Your task to perform on an android device: turn on notifications settings in the gmail app Image 0: 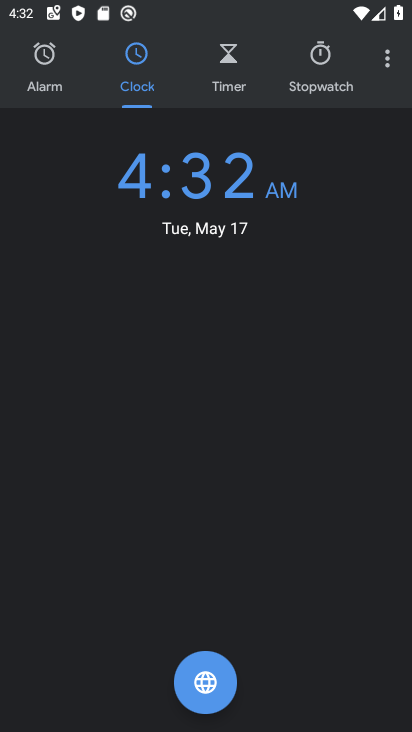
Step 0: press home button
Your task to perform on an android device: turn on notifications settings in the gmail app Image 1: 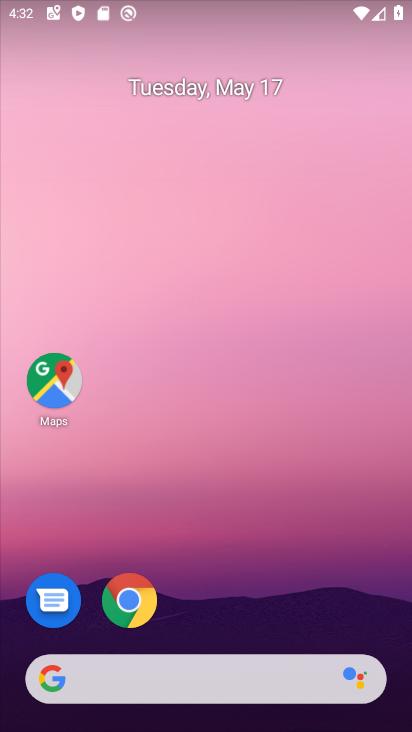
Step 1: drag from (232, 606) to (354, 0)
Your task to perform on an android device: turn on notifications settings in the gmail app Image 2: 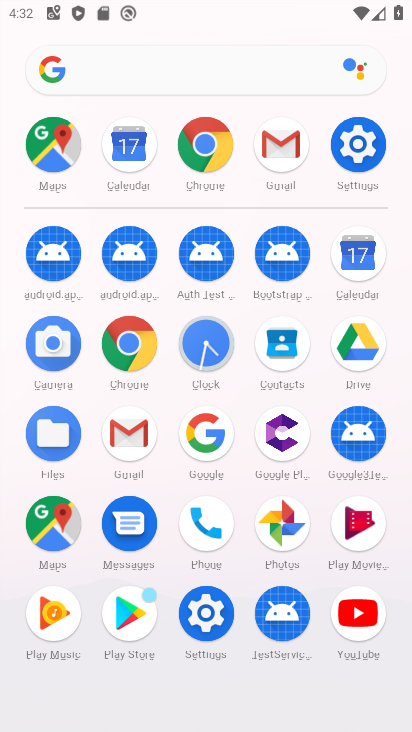
Step 2: click (139, 430)
Your task to perform on an android device: turn on notifications settings in the gmail app Image 3: 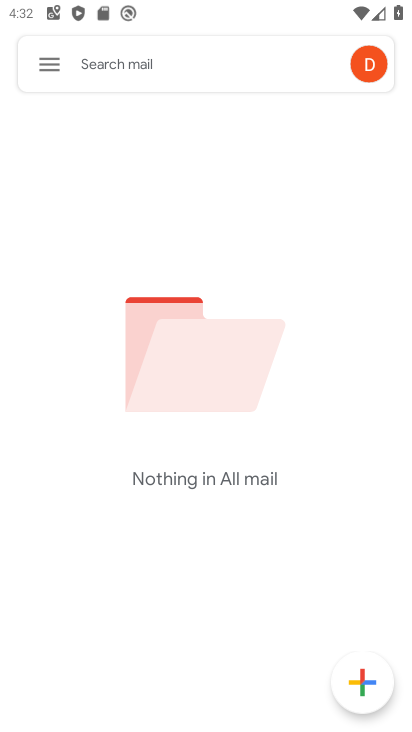
Step 3: click (51, 62)
Your task to perform on an android device: turn on notifications settings in the gmail app Image 4: 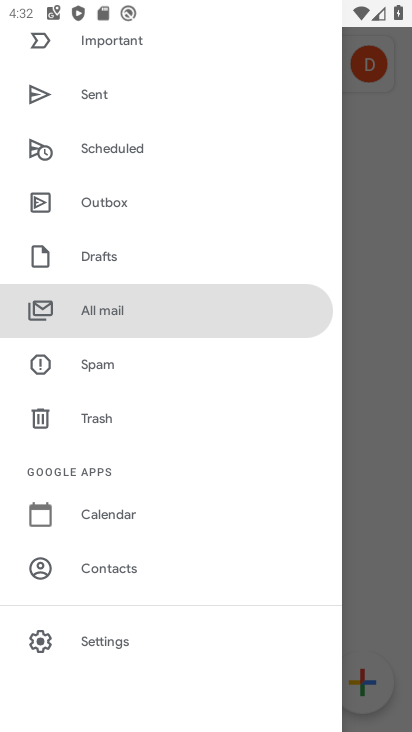
Step 4: click (109, 643)
Your task to perform on an android device: turn on notifications settings in the gmail app Image 5: 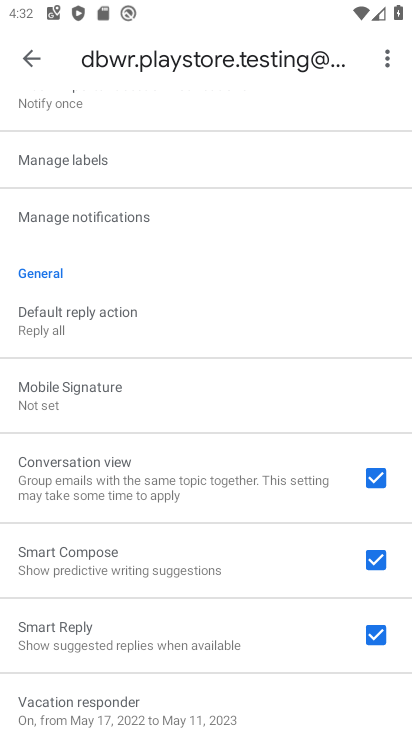
Step 5: click (32, 57)
Your task to perform on an android device: turn on notifications settings in the gmail app Image 6: 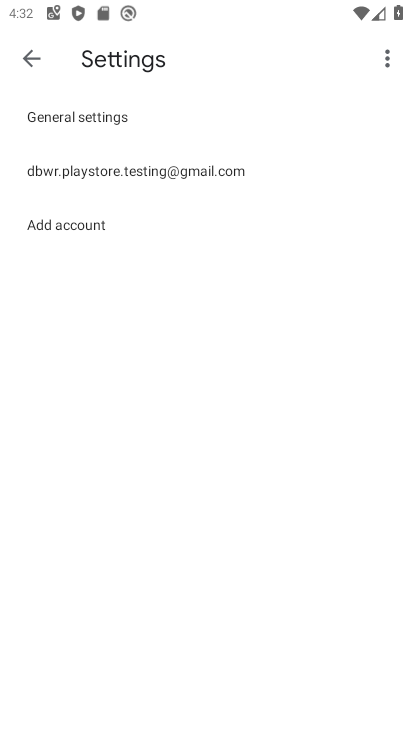
Step 6: click (112, 115)
Your task to perform on an android device: turn on notifications settings in the gmail app Image 7: 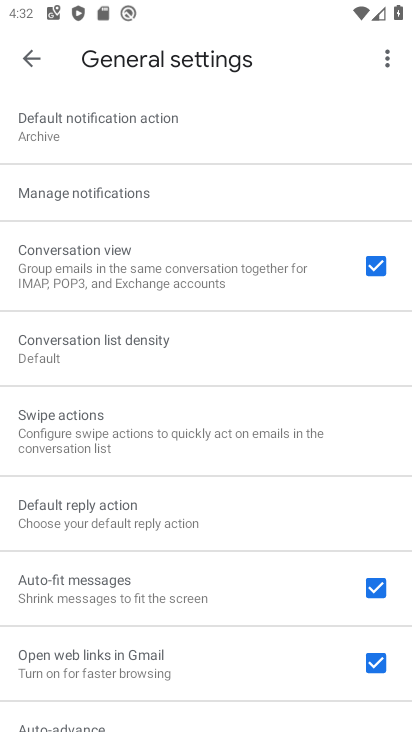
Step 7: click (104, 197)
Your task to perform on an android device: turn on notifications settings in the gmail app Image 8: 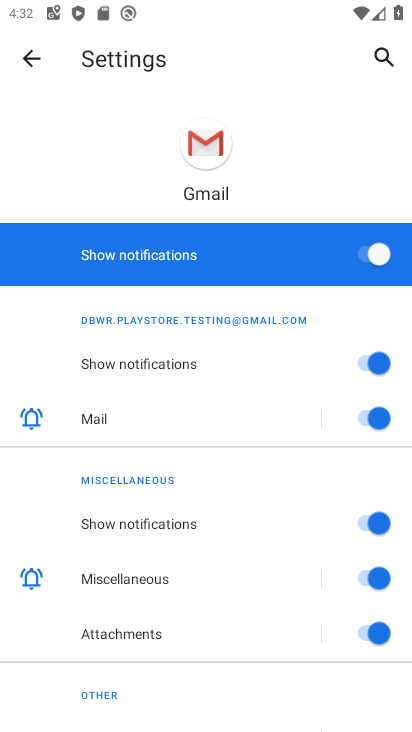
Step 8: task complete